Your task to perform on an android device: Open Chrome and go to settings Image 0: 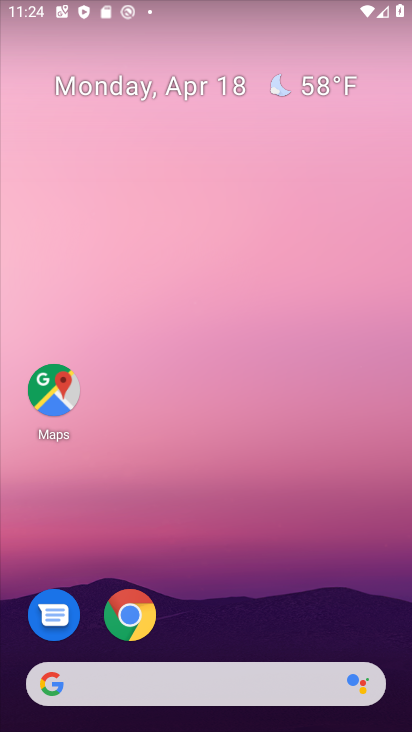
Step 0: drag from (343, 630) to (340, 35)
Your task to perform on an android device: Open Chrome and go to settings Image 1: 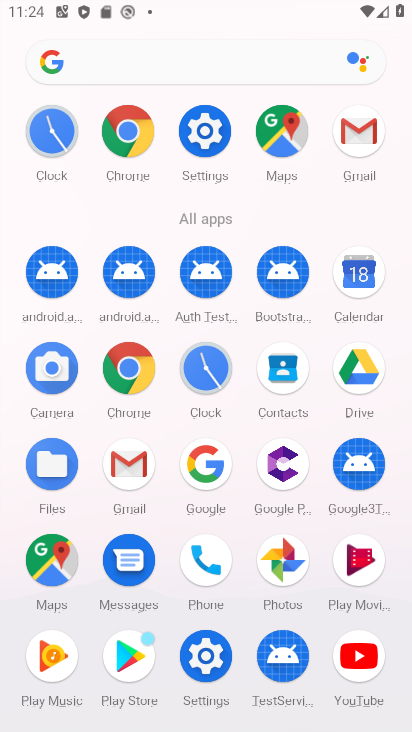
Step 1: click (132, 382)
Your task to perform on an android device: Open Chrome and go to settings Image 2: 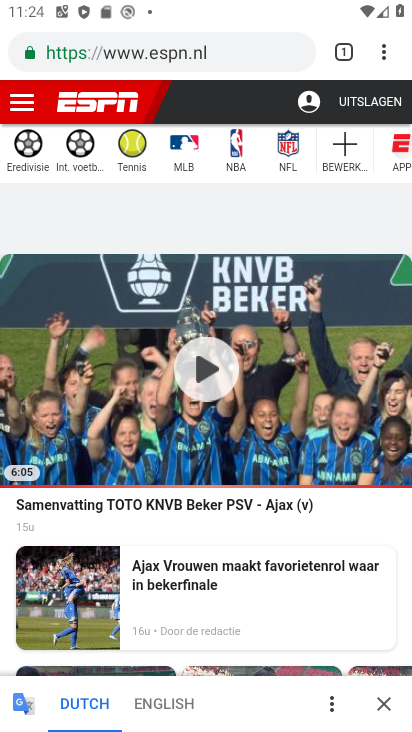
Step 2: click (383, 46)
Your task to perform on an android device: Open Chrome and go to settings Image 3: 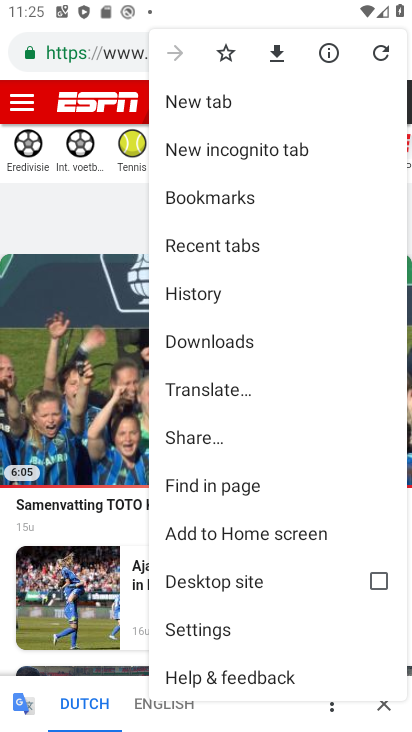
Step 3: click (223, 631)
Your task to perform on an android device: Open Chrome and go to settings Image 4: 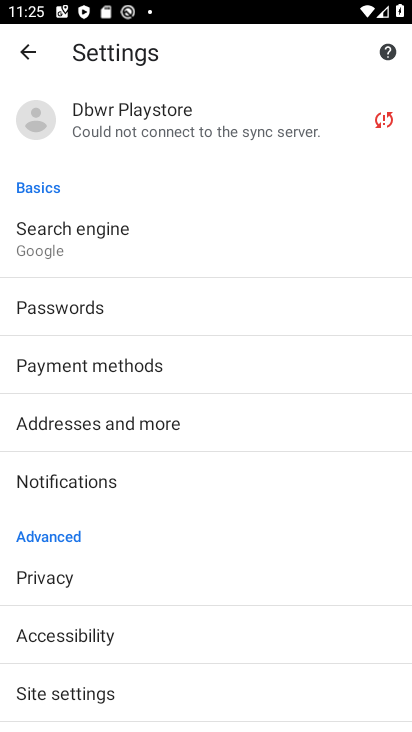
Step 4: task complete